Your task to perform on an android device: make emails show in primary in the gmail app Image 0: 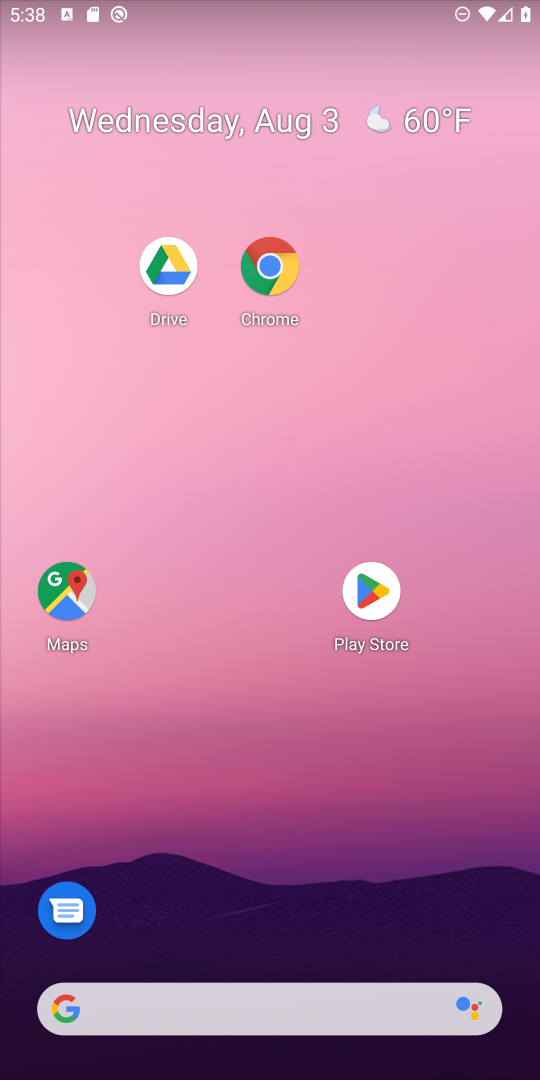
Step 0: drag from (422, 936) to (393, 8)
Your task to perform on an android device: make emails show in primary in the gmail app Image 1: 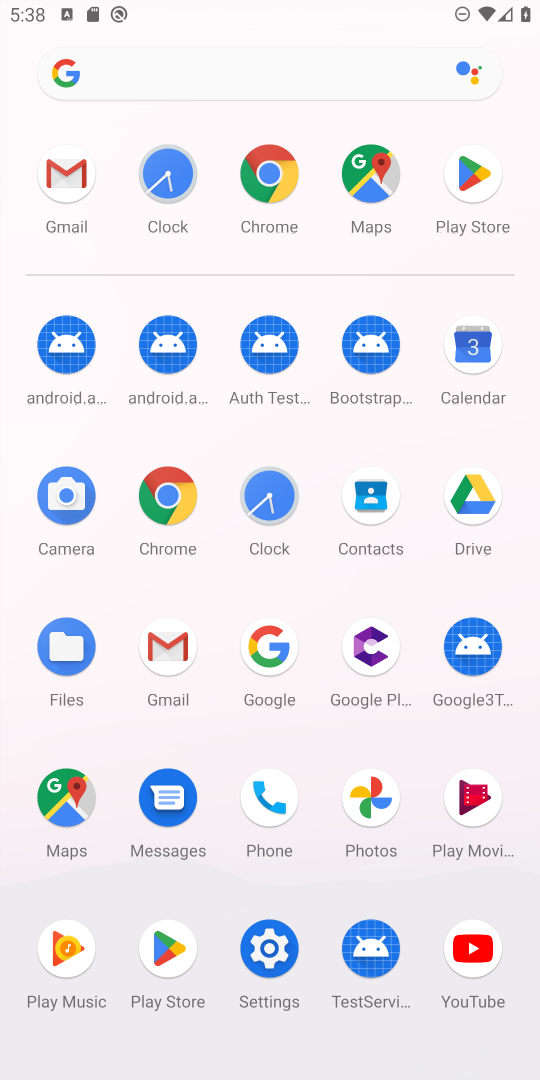
Step 1: click (162, 662)
Your task to perform on an android device: make emails show in primary in the gmail app Image 2: 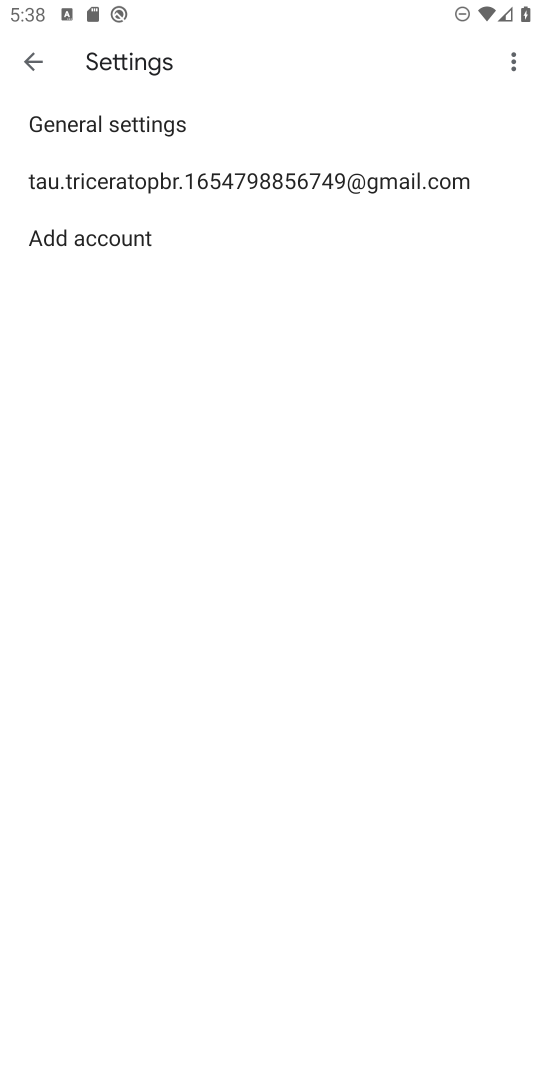
Step 2: click (301, 184)
Your task to perform on an android device: make emails show in primary in the gmail app Image 3: 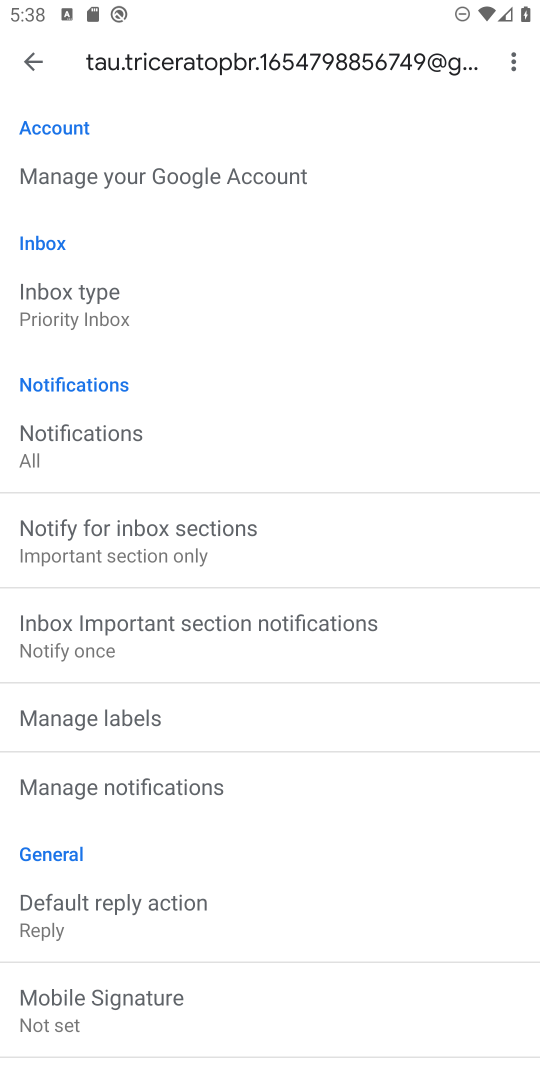
Step 3: click (95, 300)
Your task to perform on an android device: make emails show in primary in the gmail app Image 4: 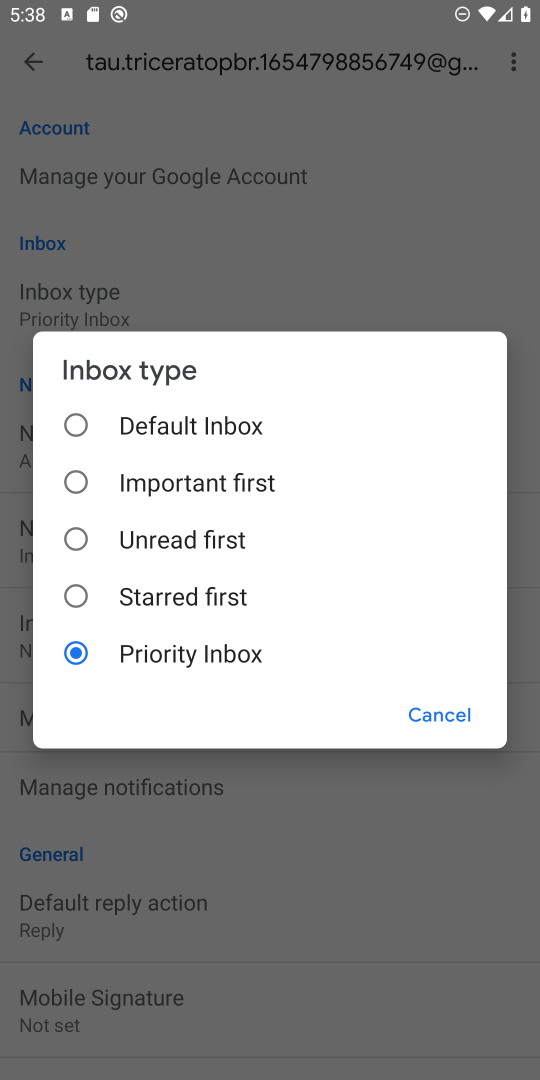
Step 4: click (63, 421)
Your task to perform on an android device: make emails show in primary in the gmail app Image 5: 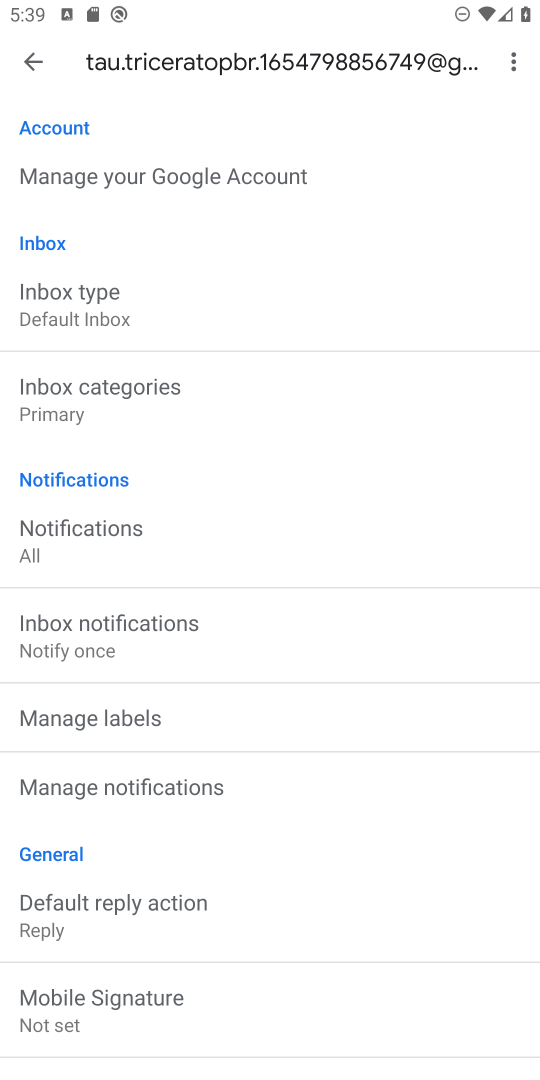
Step 5: press back button
Your task to perform on an android device: make emails show in primary in the gmail app Image 6: 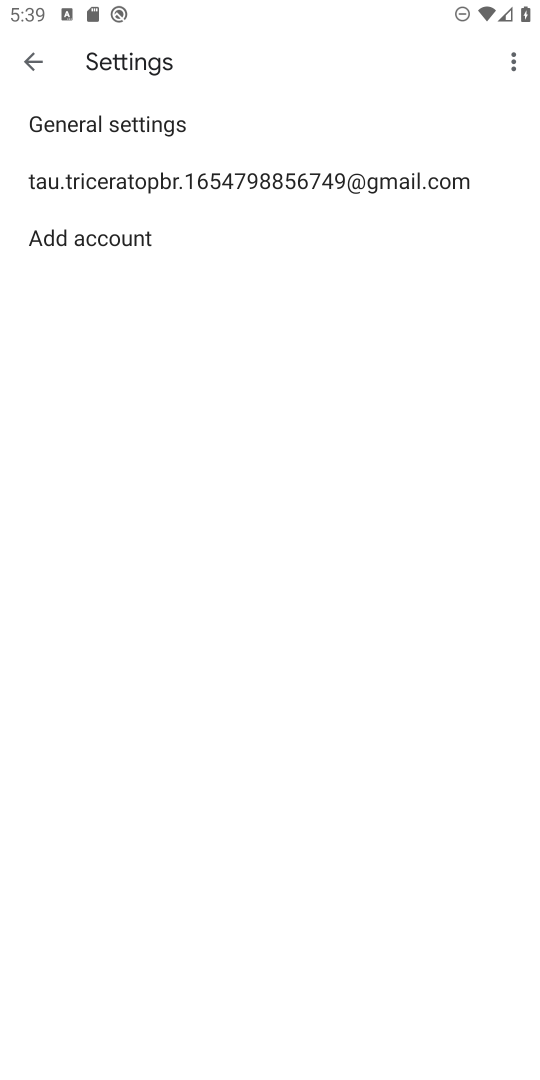
Step 6: press back button
Your task to perform on an android device: make emails show in primary in the gmail app Image 7: 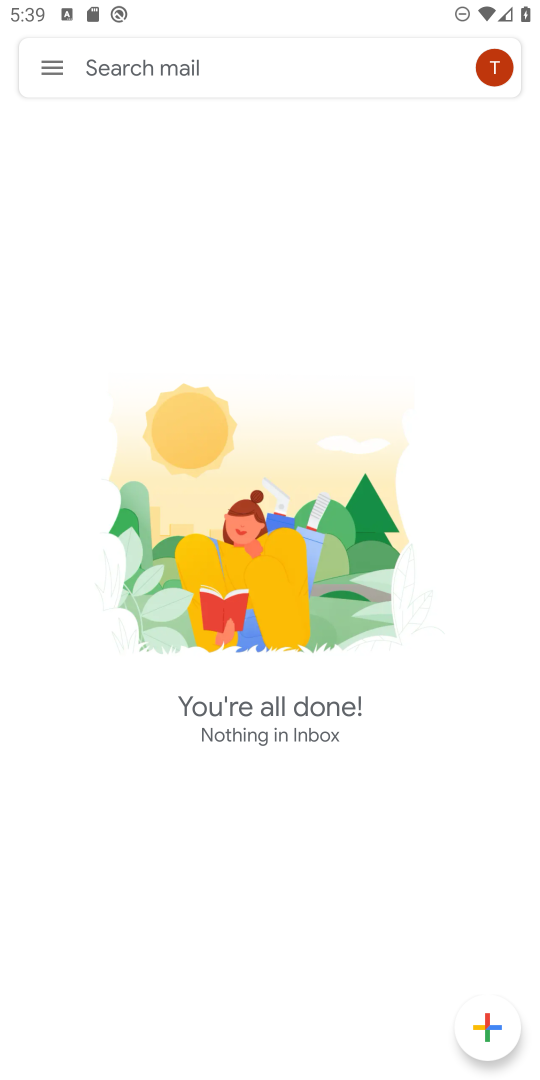
Step 7: click (53, 66)
Your task to perform on an android device: make emails show in primary in the gmail app Image 8: 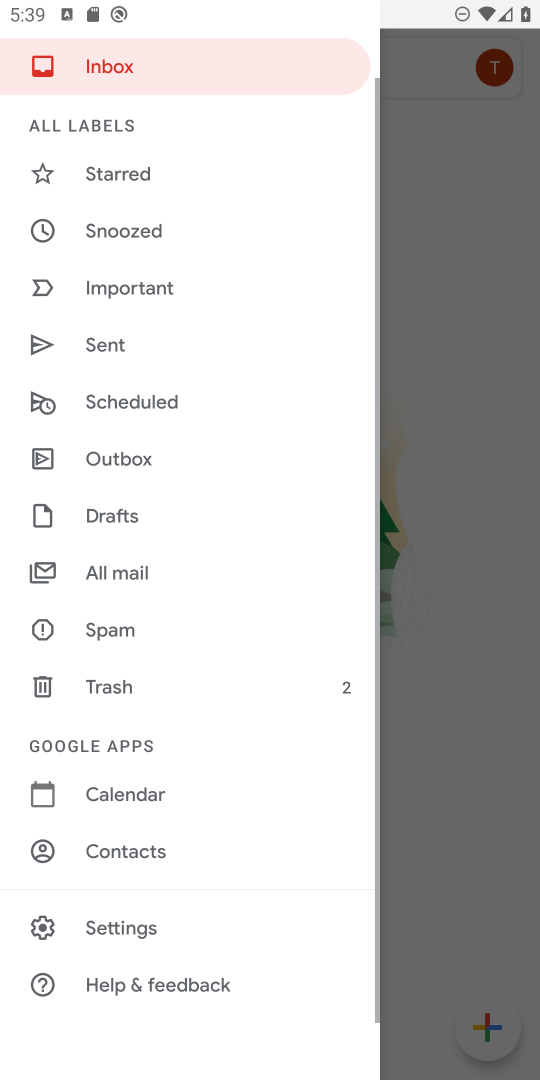
Step 8: task complete